Your task to perform on an android device: check the backup settings in the google photos Image 0: 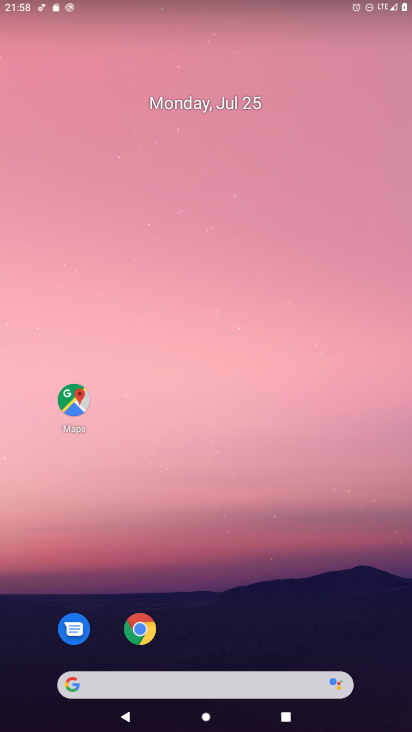
Step 0: drag from (179, 683) to (236, 183)
Your task to perform on an android device: check the backup settings in the google photos Image 1: 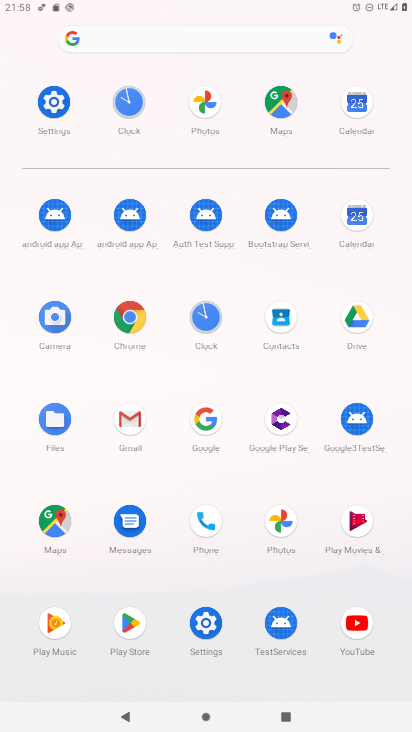
Step 1: click (206, 101)
Your task to perform on an android device: check the backup settings in the google photos Image 2: 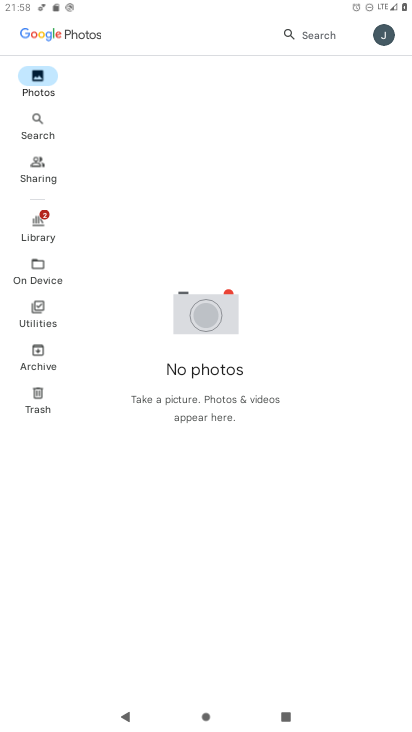
Step 2: click (386, 33)
Your task to perform on an android device: check the backup settings in the google photos Image 3: 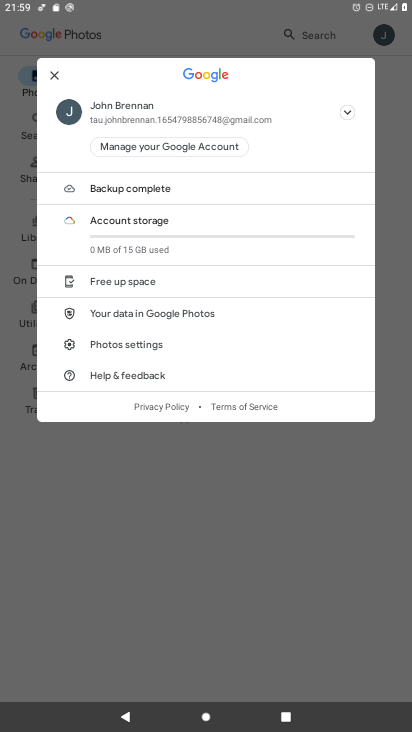
Step 3: click (131, 343)
Your task to perform on an android device: check the backup settings in the google photos Image 4: 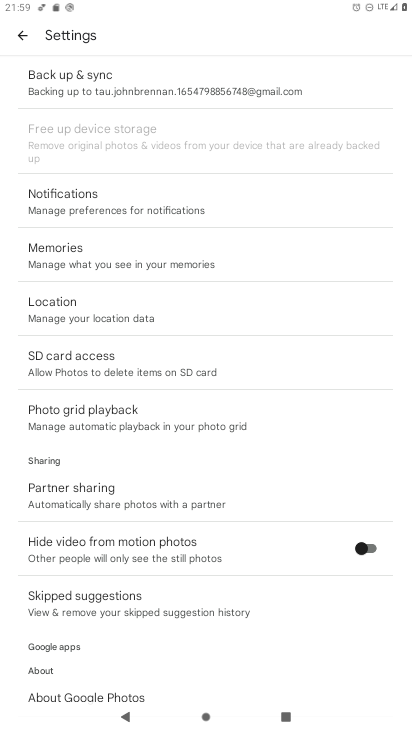
Step 4: click (181, 80)
Your task to perform on an android device: check the backup settings in the google photos Image 5: 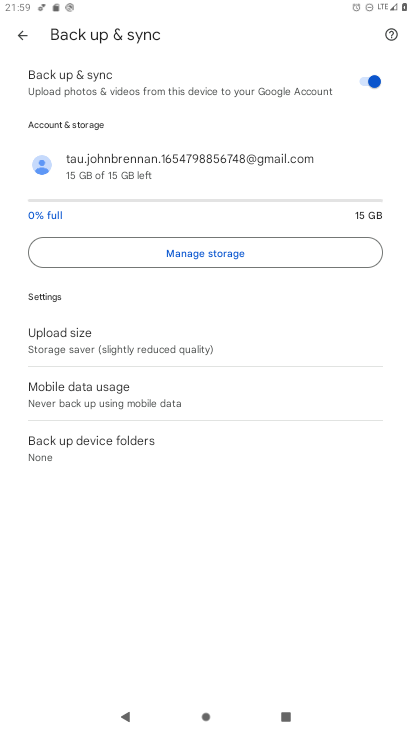
Step 5: task complete